Your task to perform on an android device: What's the weather like in Mexico City? Image 0: 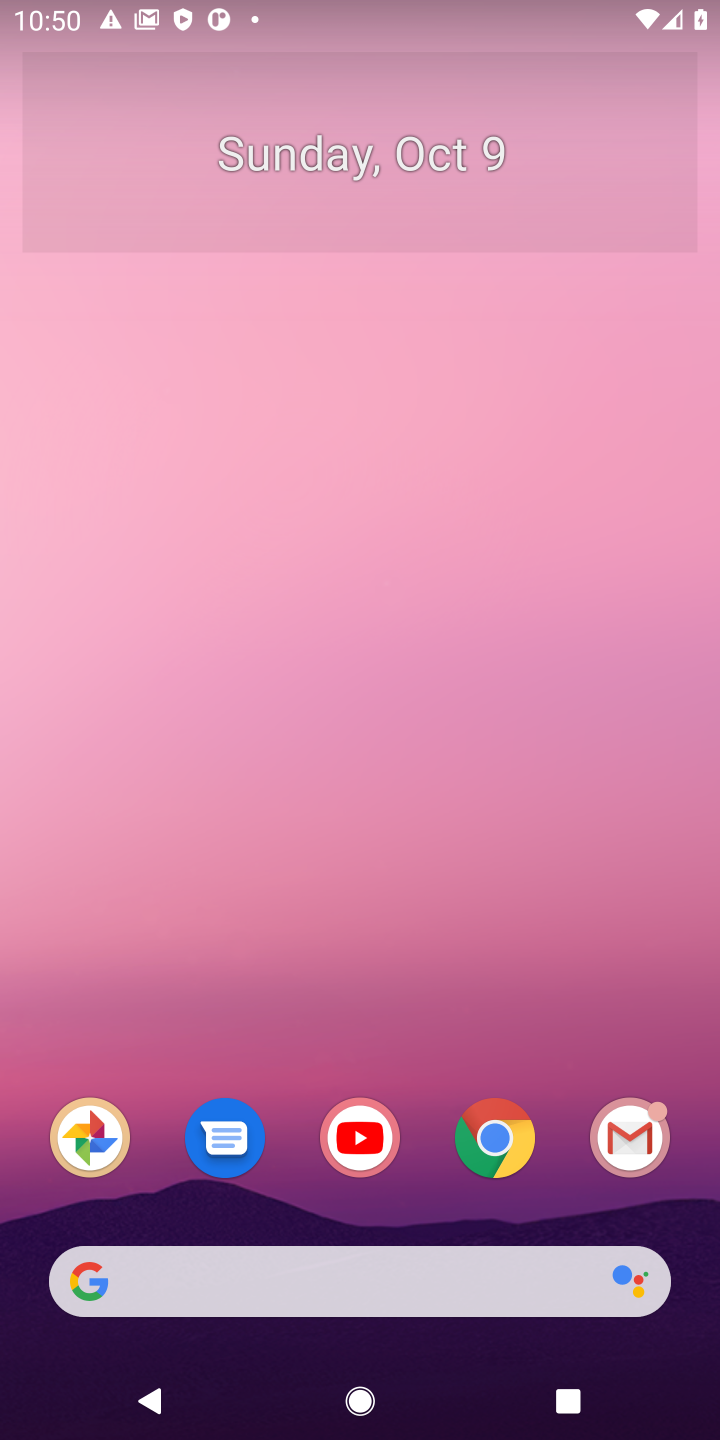
Step 0: drag from (305, 1248) to (327, 135)
Your task to perform on an android device: What's the weather like in Mexico City? Image 1: 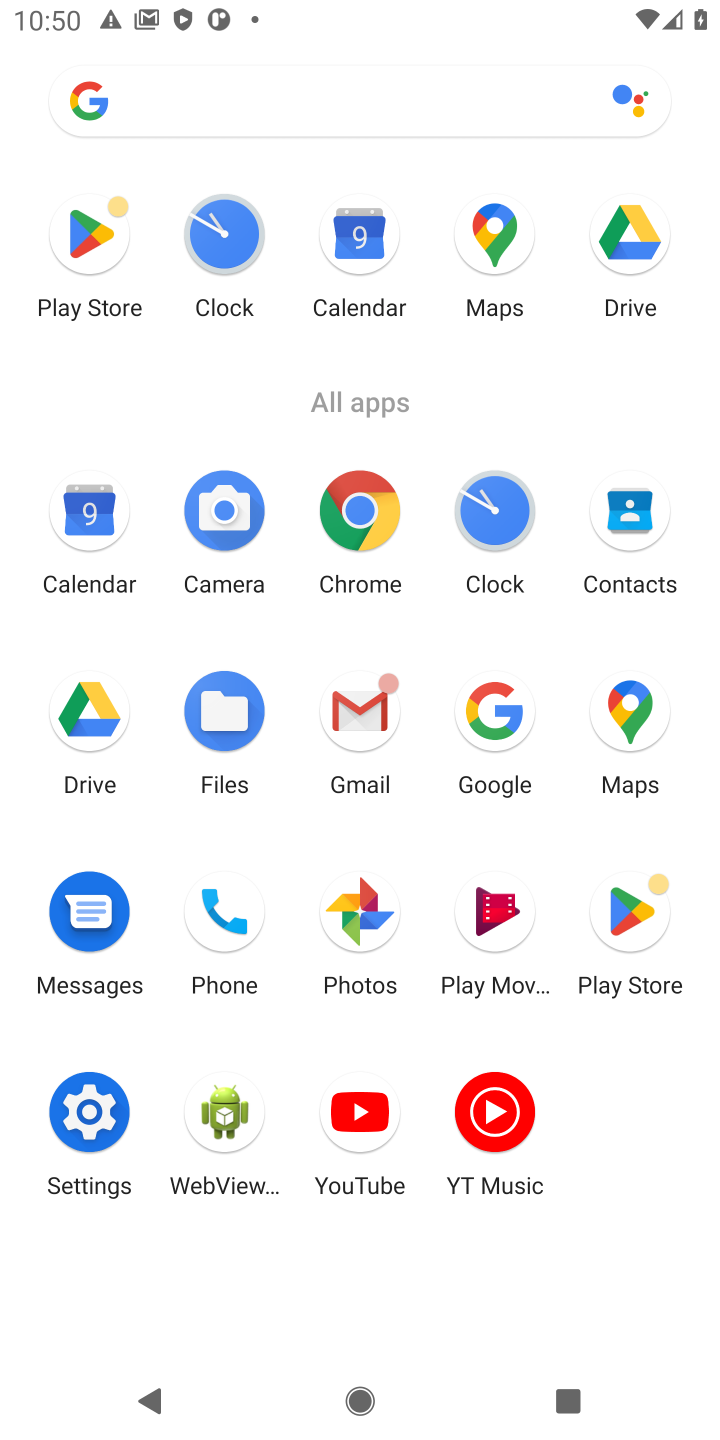
Step 1: click (357, 529)
Your task to perform on an android device: What's the weather like in Mexico City? Image 2: 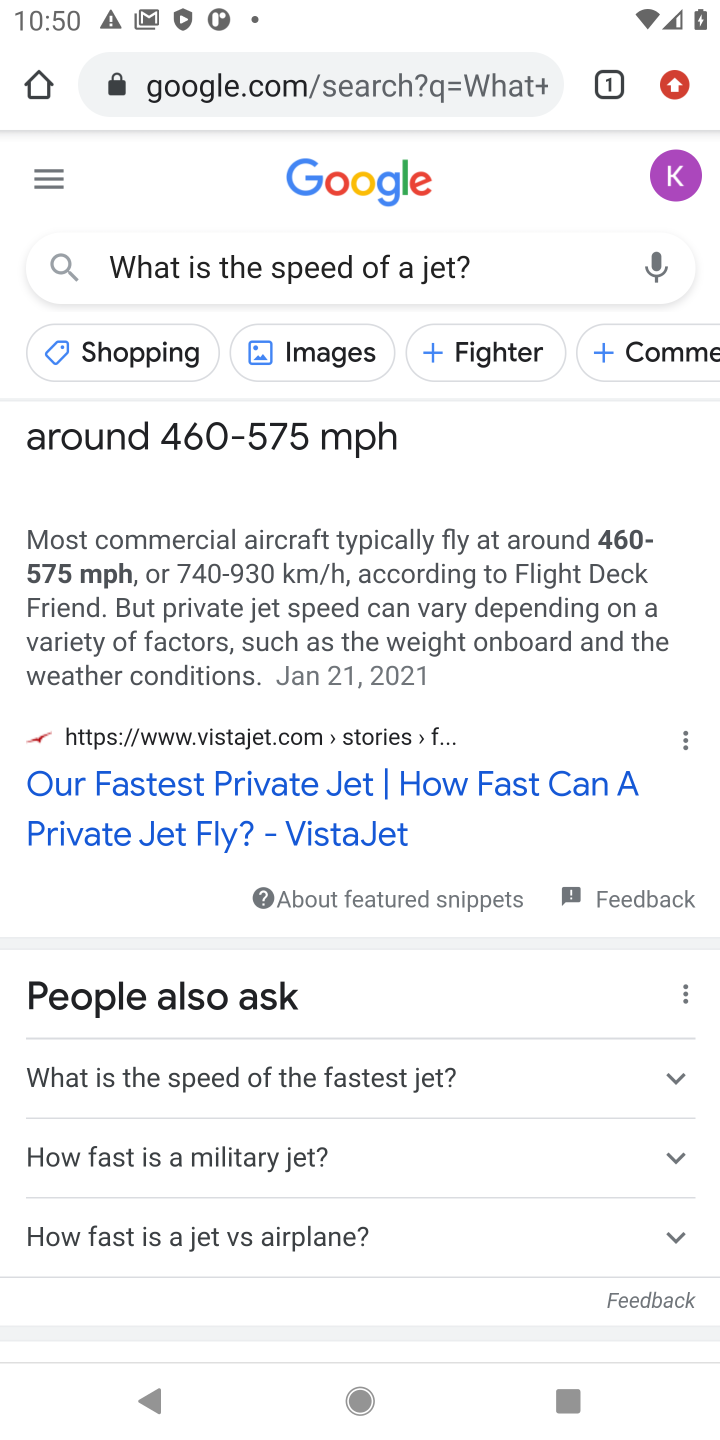
Step 2: click (520, 246)
Your task to perform on an android device: What's the weather like in Mexico City? Image 3: 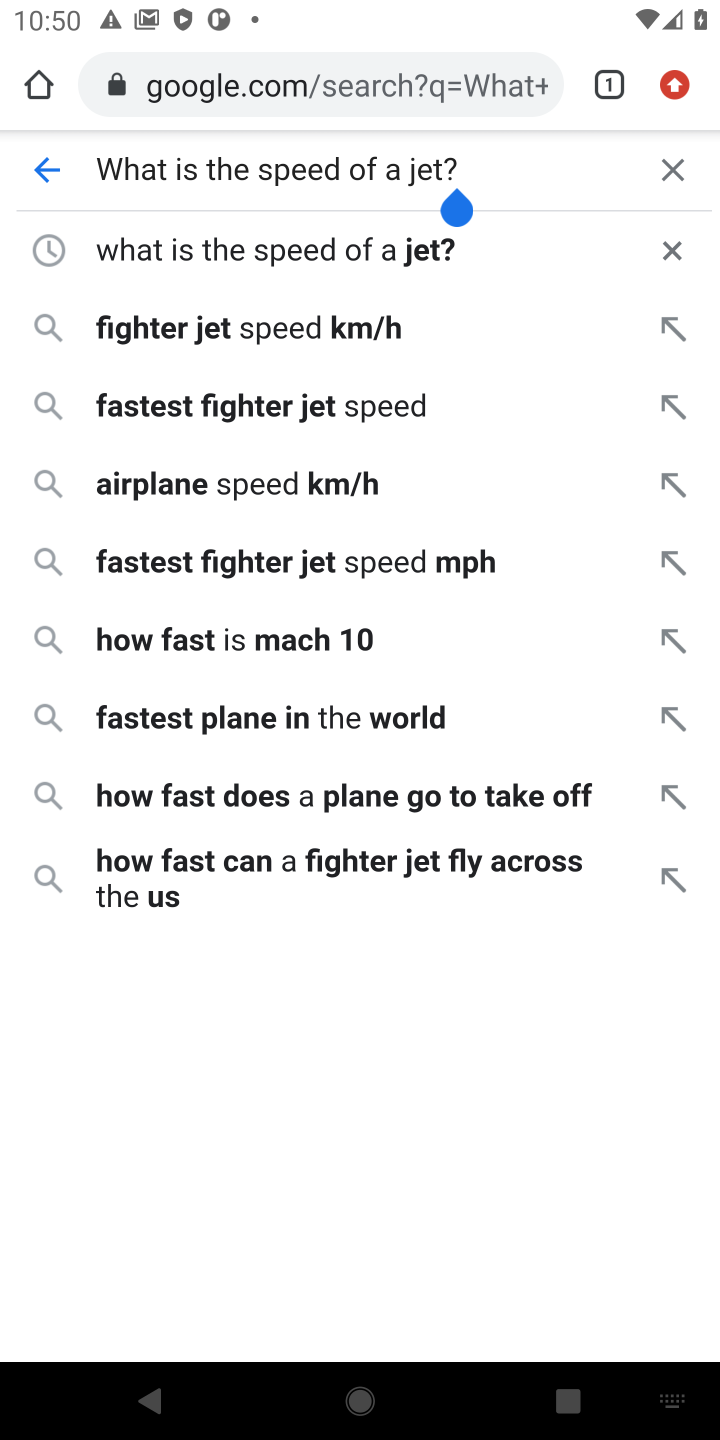
Step 3: click (669, 174)
Your task to perform on an android device: What's the weather like in Mexico City? Image 4: 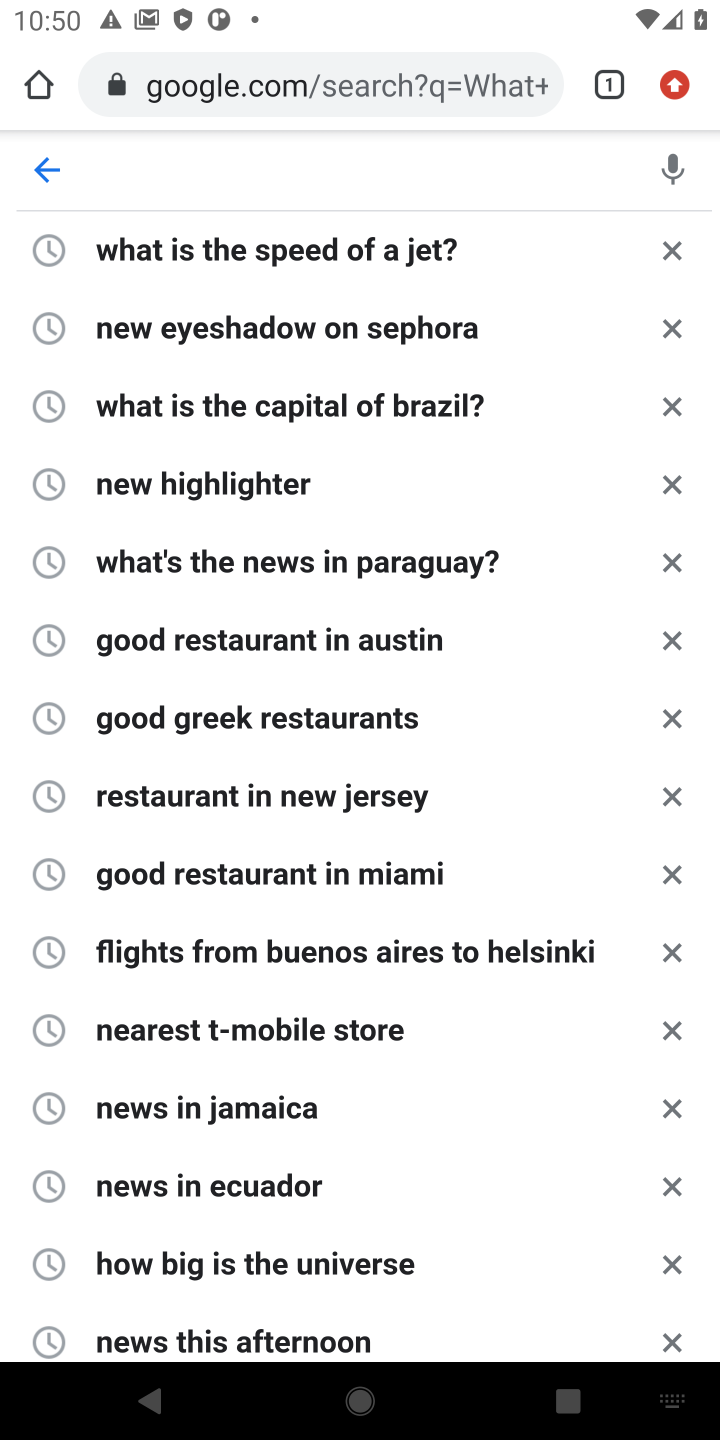
Step 4: type "What's the weather like in Mexico City?"
Your task to perform on an android device: What's the weather like in Mexico City? Image 5: 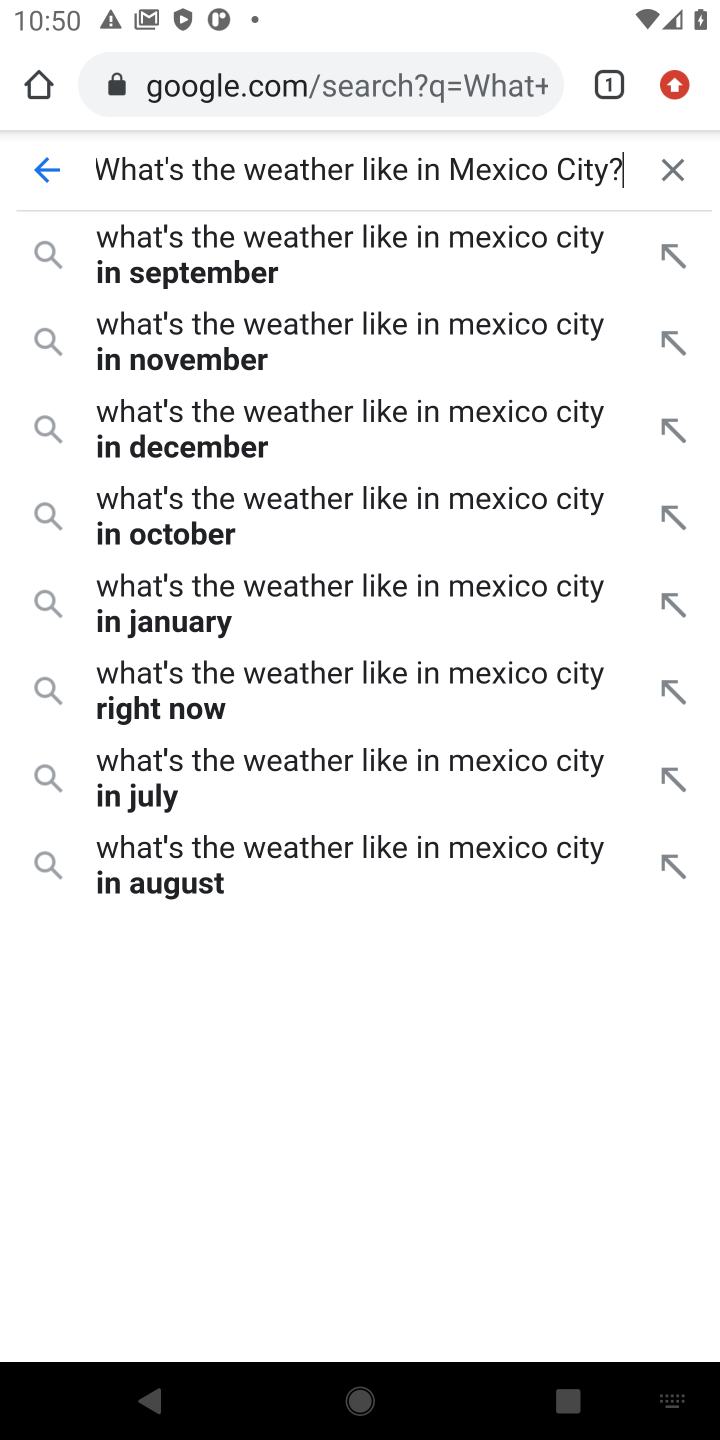
Step 5: press enter
Your task to perform on an android device: What's the weather like in Mexico City? Image 6: 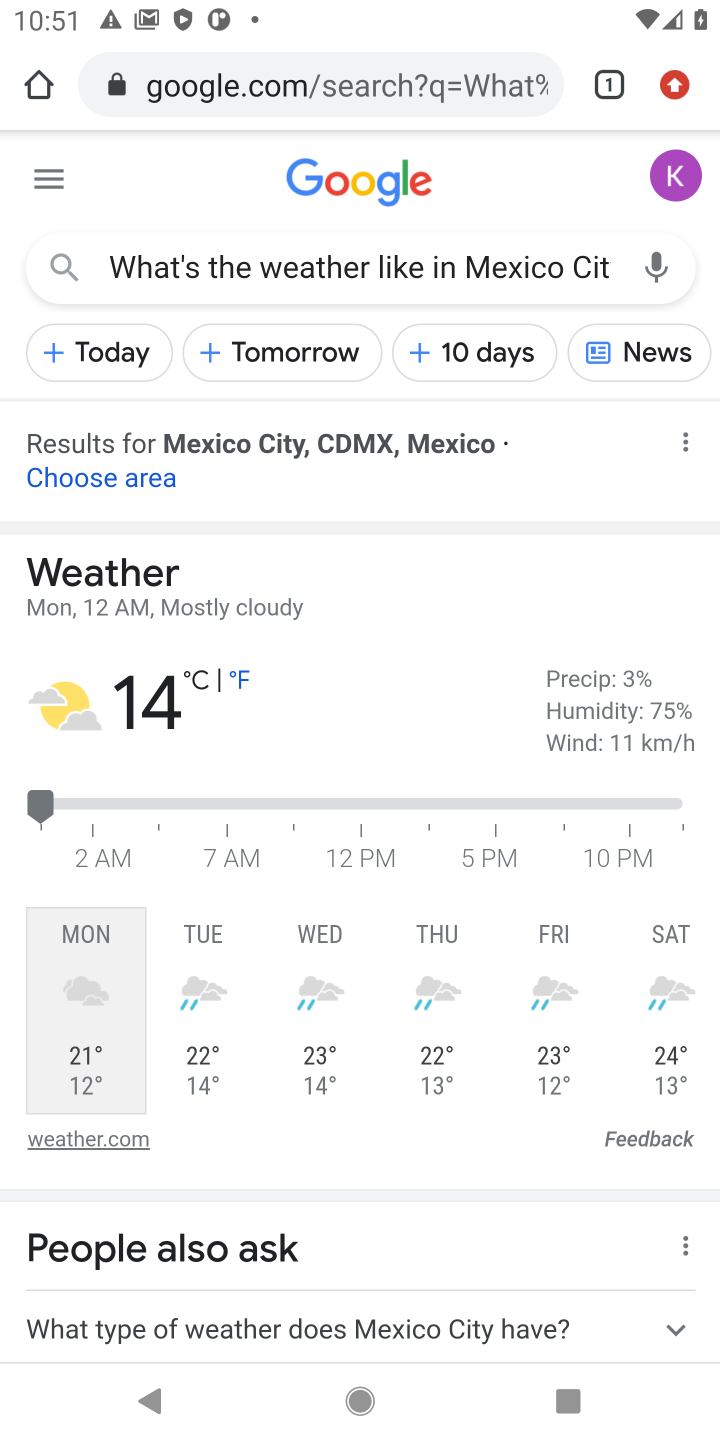
Step 6: task complete